Your task to perform on an android device: empty trash in google photos Image 0: 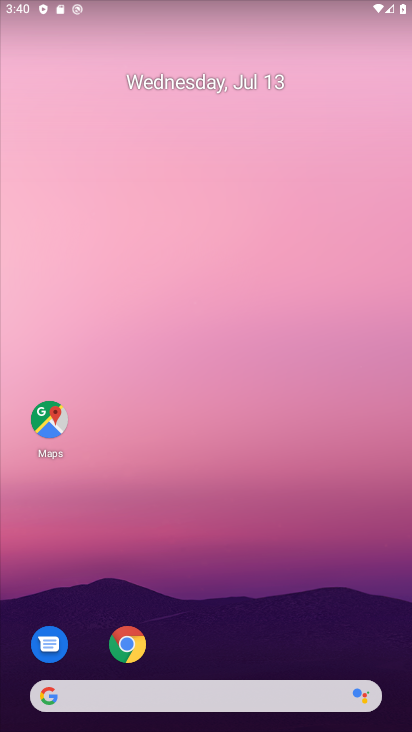
Step 0: drag from (330, 645) to (278, 234)
Your task to perform on an android device: empty trash in google photos Image 1: 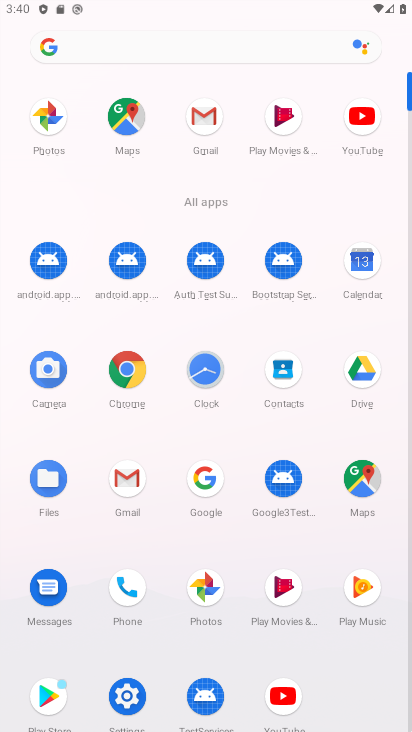
Step 1: click (52, 115)
Your task to perform on an android device: empty trash in google photos Image 2: 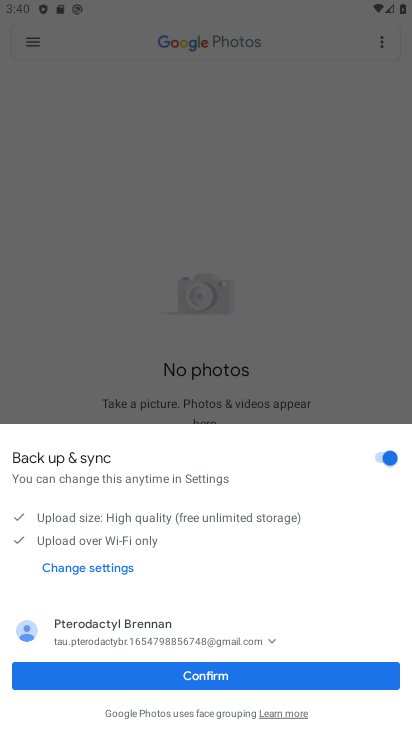
Step 2: click (213, 674)
Your task to perform on an android device: empty trash in google photos Image 3: 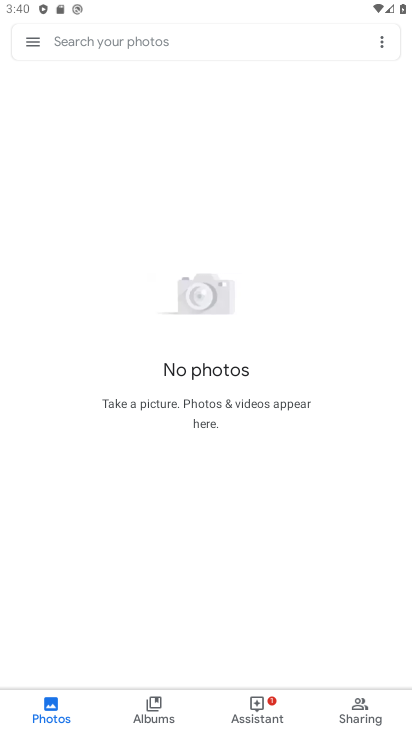
Step 3: click (30, 42)
Your task to perform on an android device: empty trash in google photos Image 4: 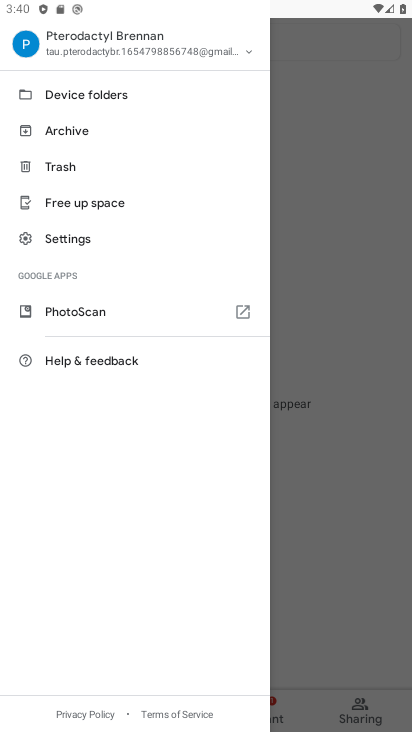
Step 4: click (65, 158)
Your task to perform on an android device: empty trash in google photos Image 5: 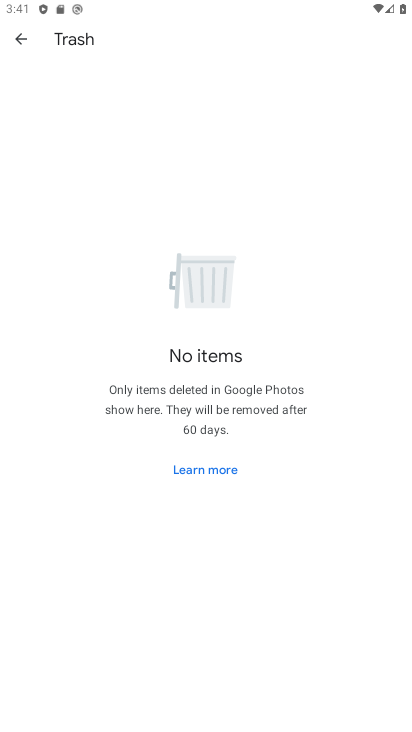
Step 5: task complete